Your task to perform on an android device: What's on my calendar tomorrow? Image 0: 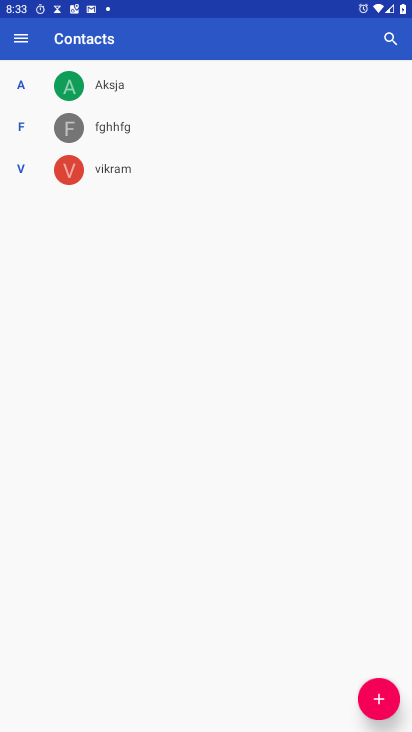
Step 0: press home button
Your task to perform on an android device: What's on my calendar tomorrow? Image 1: 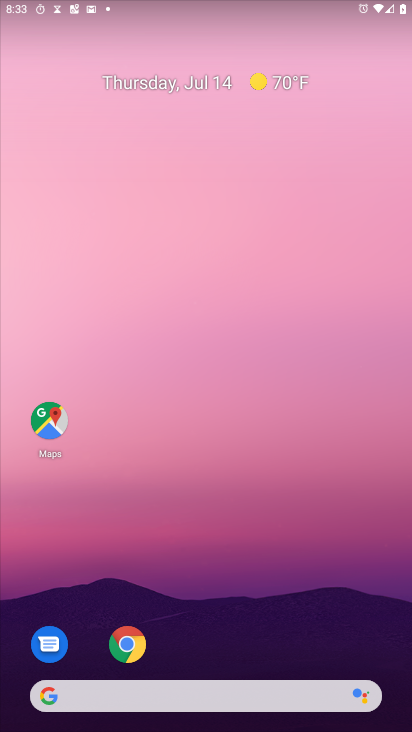
Step 1: drag from (178, 695) to (272, 6)
Your task to perform on an android device: What's on my calendar tomorrow? Image 2: 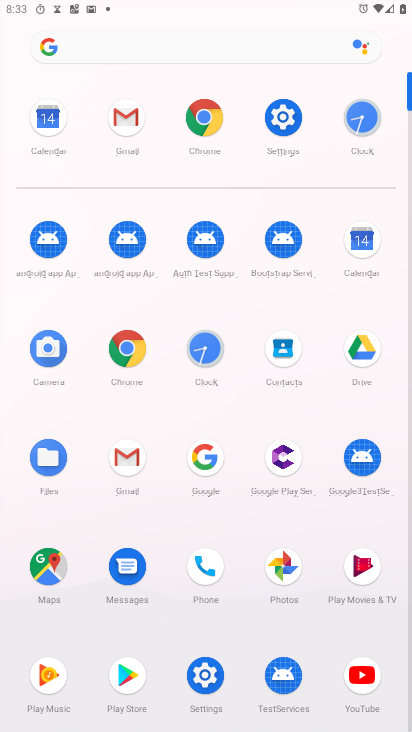
Step 2: click (361, 246)
Your task to perform on an android device: What's on my calendar tomorrow? Image 3: 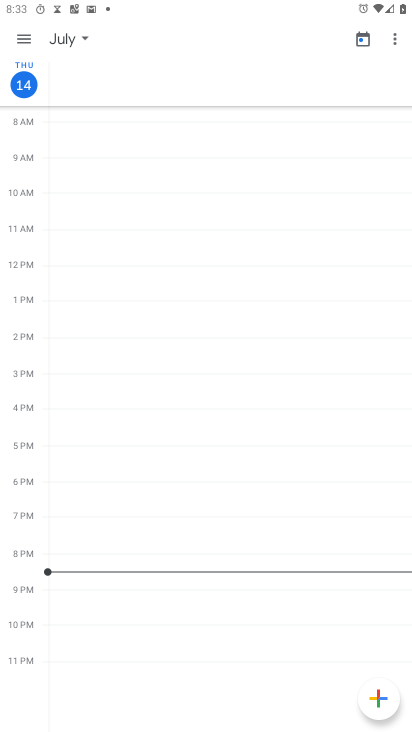
Step 3: click (71, 33)
Your task to perform on an android device: What's on my calendar tomorrow? Image 4: 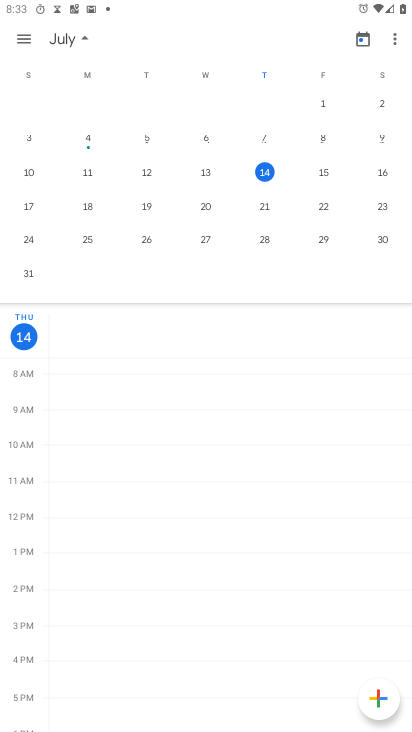
Step 4: click (323, 169)
Your task to perform on an android device: What's on my calendar tomorrow? Image 5: 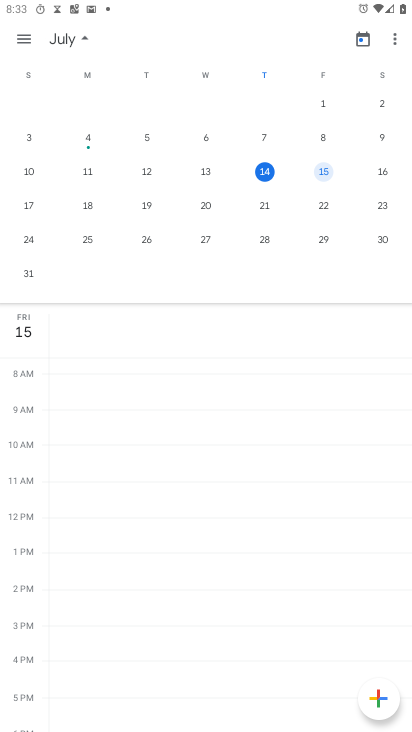
Step 5: click (21, 44)
Your task to perform on an android device: What's on my calendar tomorrow? Image 6: 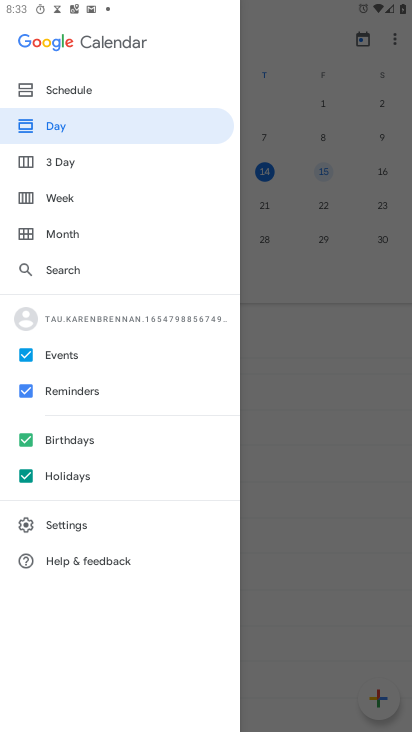
Step 6: click (72, 89)
Your task to perform on an android device: What's on my calendar tomorrow? Image 7: 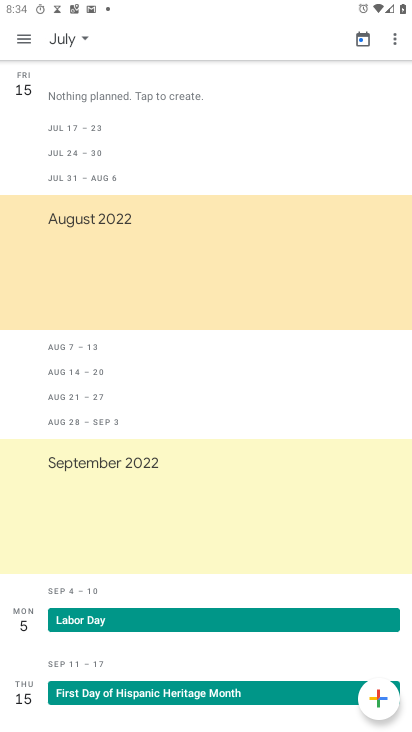
Step 7: task complete